Your task to perform on an android device: visit the assistant section in the google photos Image 0: 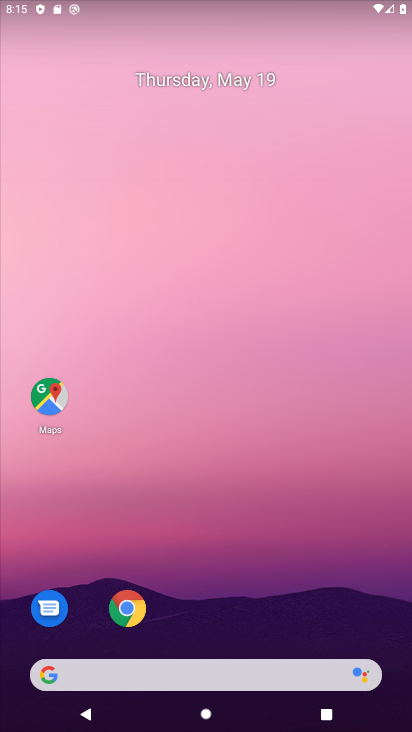
Step 0: drag from (262, 606) to (218, 87)
Your task to perform on an android device: visit the assistant section in the google photos Image 1: 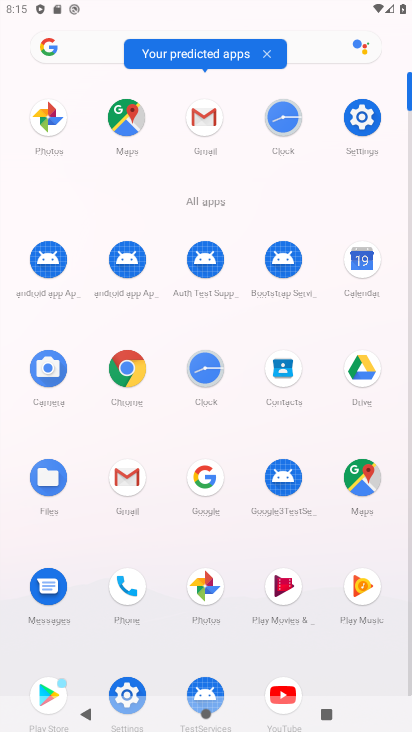
Step 1: click (200, 586)
Your task to perform on an android device: visit the assistant section in the google photos Image 2: 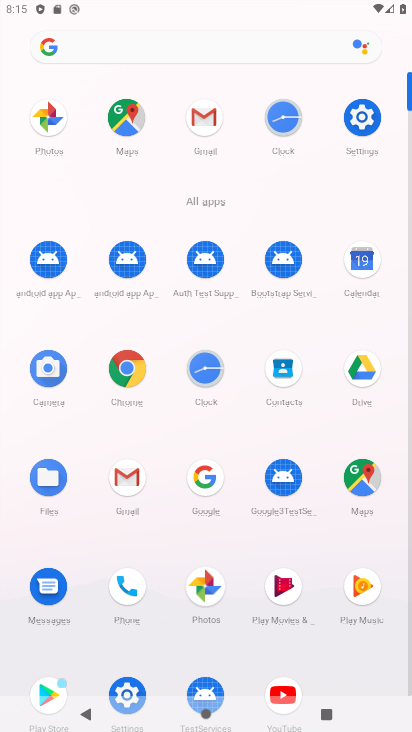
Step 2: click (200, 586)
Your task to perform on an android device: visit the assistant section in the google photos Image 3: 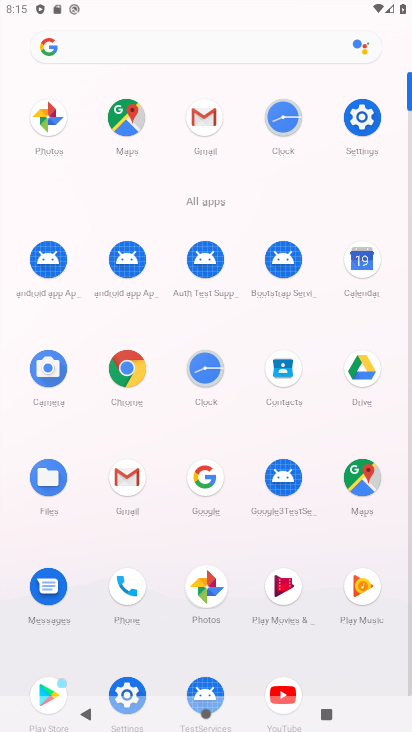
Step 3: click (200, 586)
Your task to perform on an android device: visit the assistant section in the google photos Image 4: 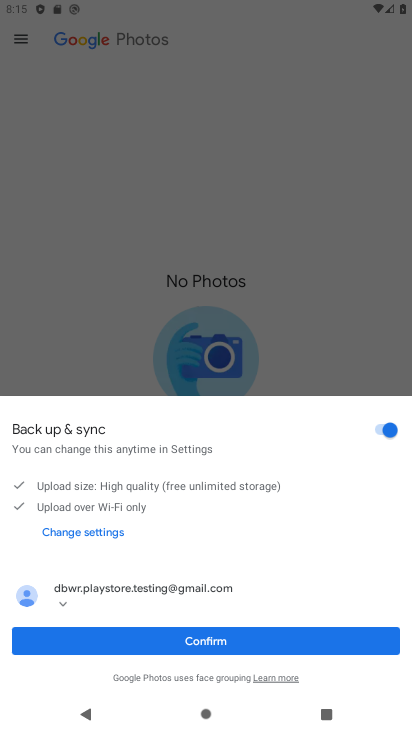
Step 4: click (216, 642)
Your task to perform on an android device: visit the assistant section in the google photos Image 5: 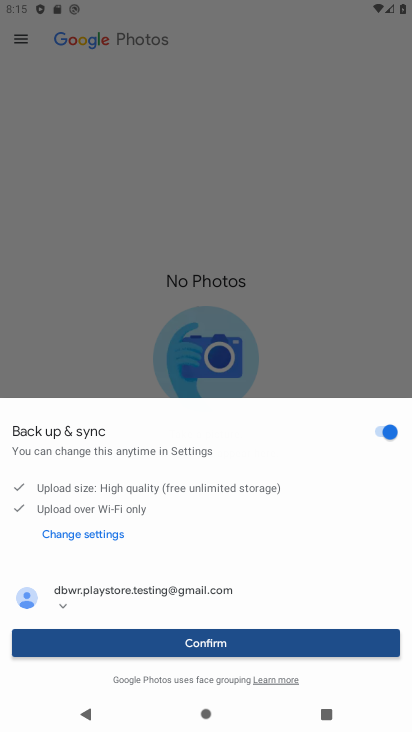
Step 5: click (216, 642)
Your task to perform on an android device: visit the assistant section in the google photos Image 6: 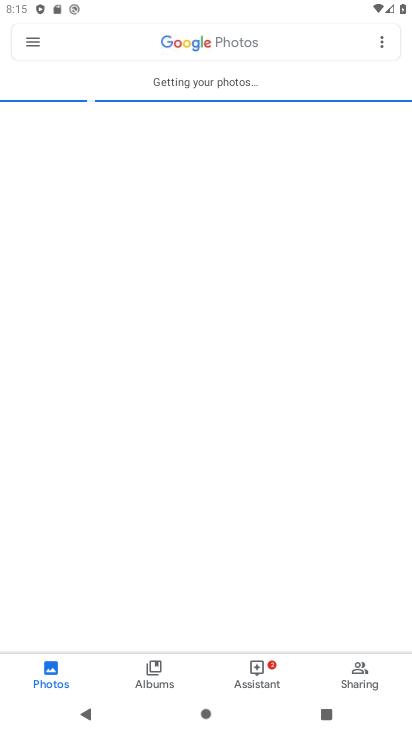
Step 6: click (267, 675)
Your task to perform on an android device: visit the assistant section in the google photos Image 7: 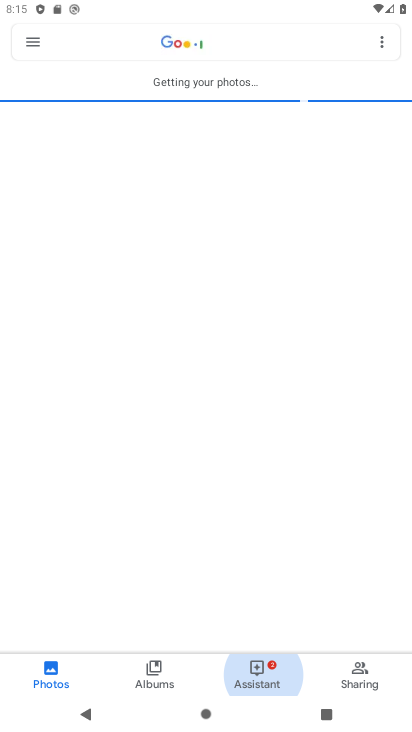
Step 7: click (262, 677)
Your task to perform on an android device: visit the assistant section in the google photos Image 8: 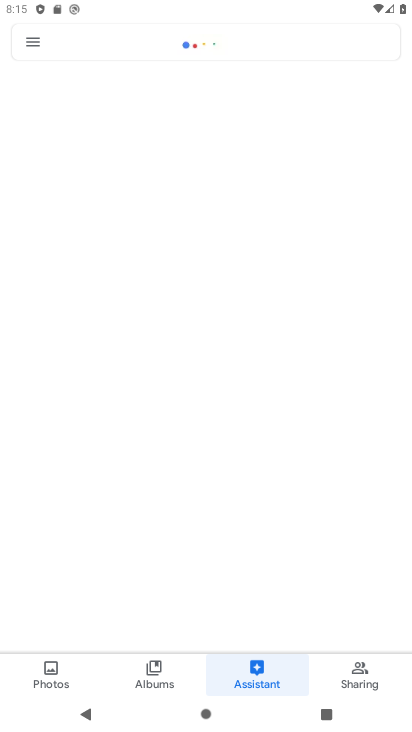
Step 8: click (262, 677)
Your task to perform on an android device: visit the assistant section in the google photos Image 9: 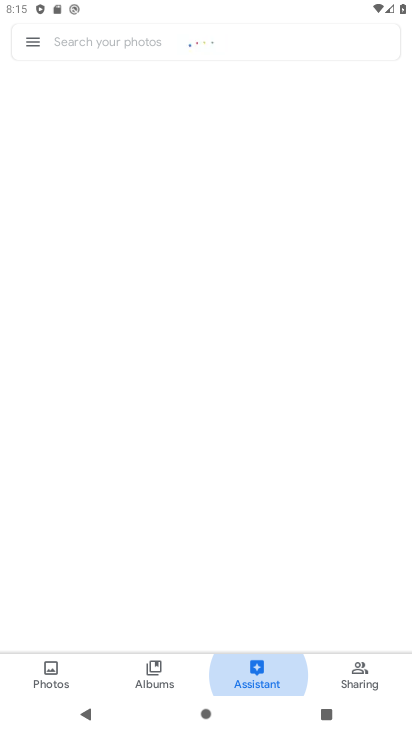
Step 9: click (262, 677)
Your task to perform on an android device: visit the assistant section in the google photos Image 10: 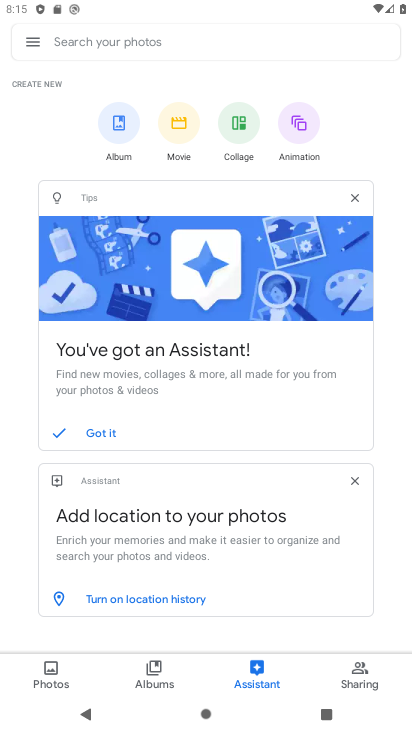
Step 10: click (253, 676)
Your task to perform on an android device: visit the assistant section in the google photos Image 11: 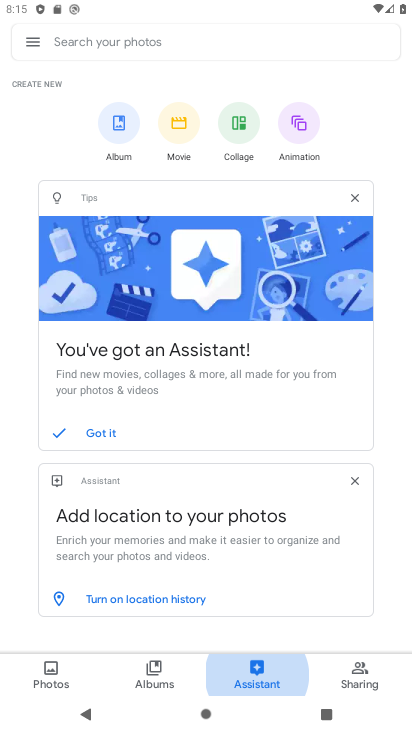
Step 11: click (253, 676)
Your task to perform on an android device: visit the assistant section in the google photos Image 12: 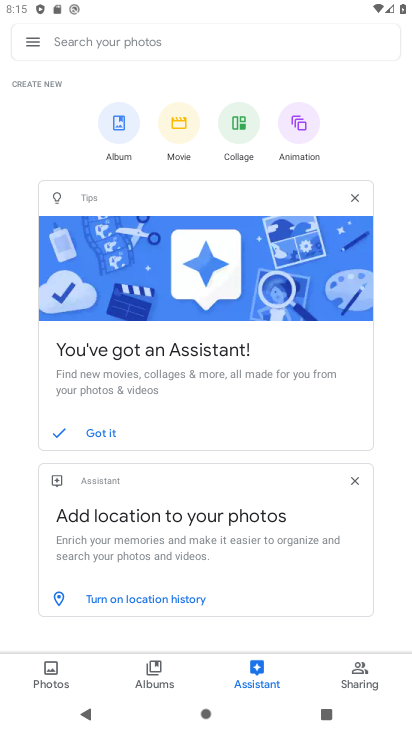
Step 12: click (253, 675)
Your task to perform on an android device: visit the assistant section in the google photos Image 13: 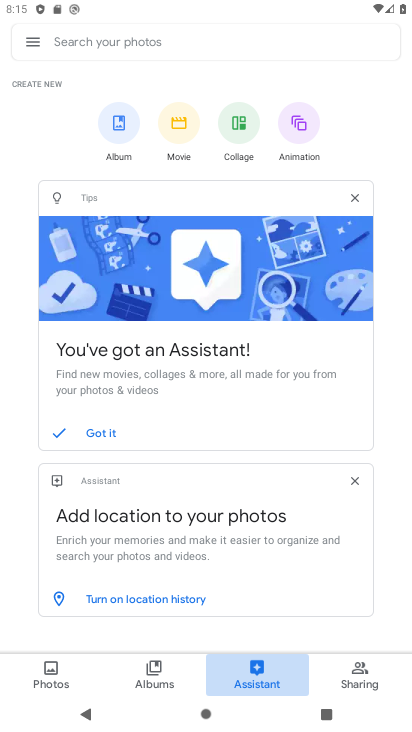
Step 13: click (257, 665)
Your task to perform on an android device: visit the assistant section in the google photos Image 14: 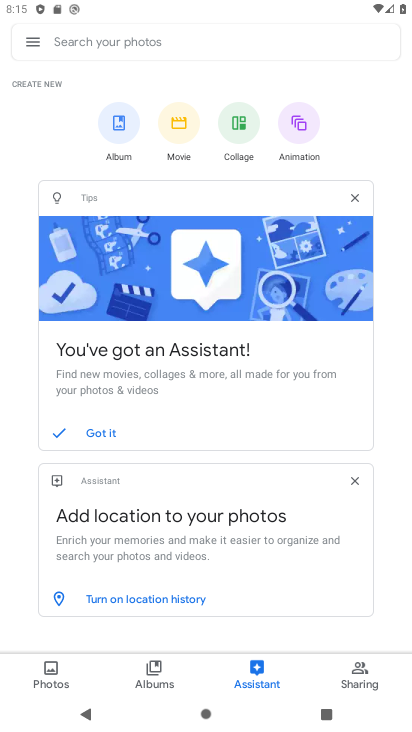
Step 14: task complete